Your task to perform on an android device: Open accessibility settings Image 0: 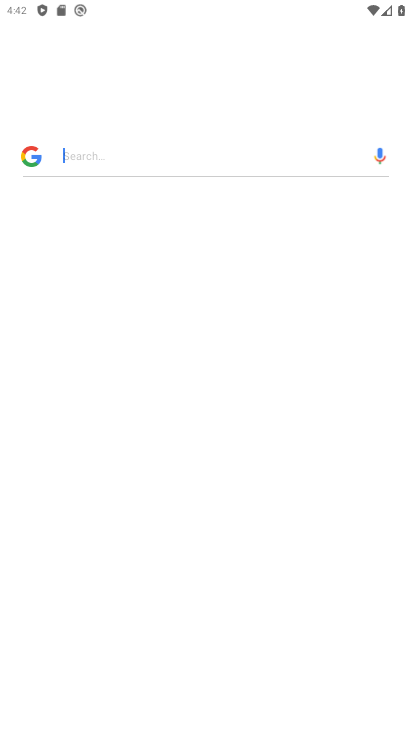
Step 0: drag from (279, 617) to (248, 314)
Your task to perform on an android device: Open accessibility settings Image 1: 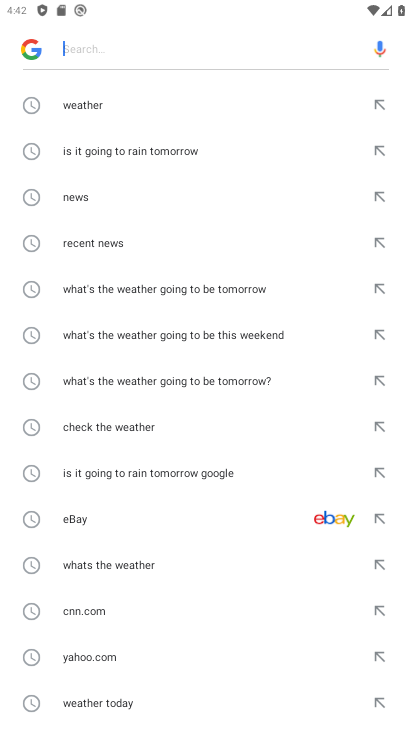
Step 1: press back button
Your task to perform on an android device: Open accessibility settings Image 2: 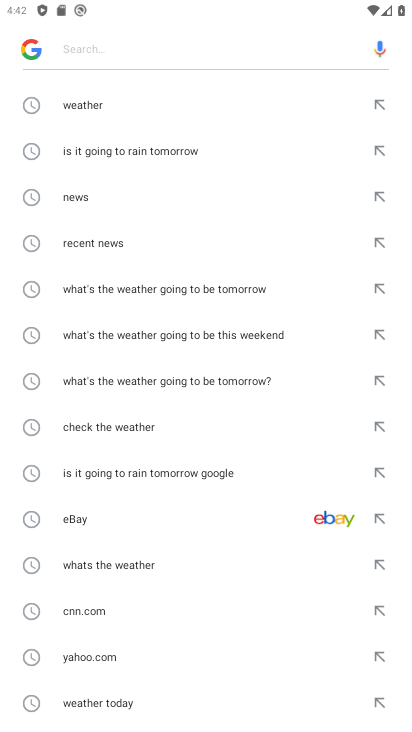
Step 2: press back button
Your task to perform on an android device: Open accessibility settings Image 3: 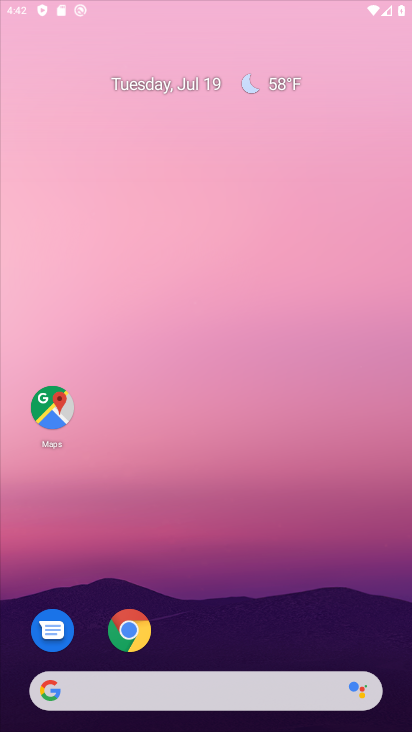
Step 3: press back button
Your task to perform on an android device: Open accessibility settings Image 4: 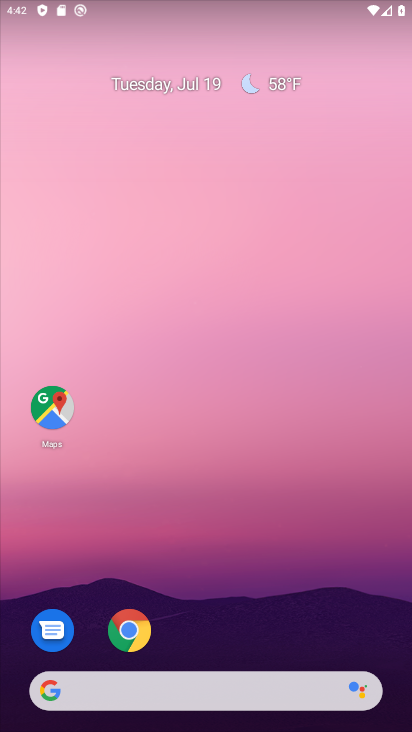
Step 4: drag from (196, 401) to (187, 135)
Your task to perform on an android device: Open accessibility settings Image 5: 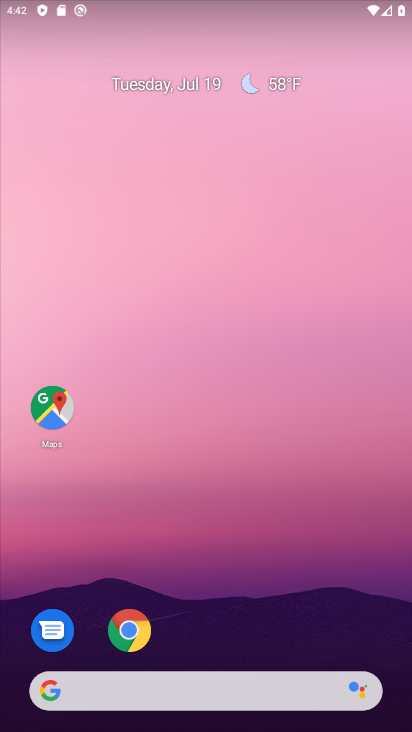
Step 5: drag from (212, 407) to (192, 57)
Your task to perform on an android device: Open accessibility settings Image 6: 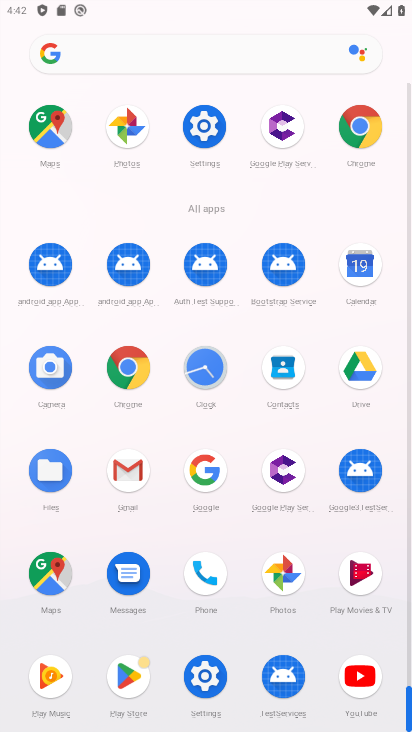
Step 6: drag from (250, 531) to (277, 234)
Your task to perform on an android device: Open accessibility settings Image 7: 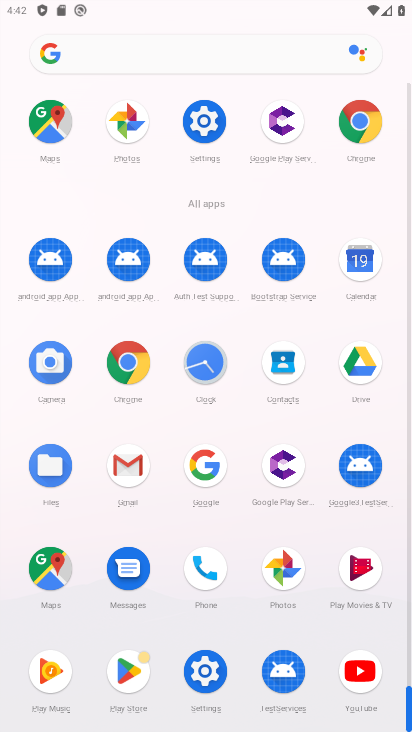
Step 7: click (208, 134)
Your task to perform on an android device: Open accessibility settings Image 8: 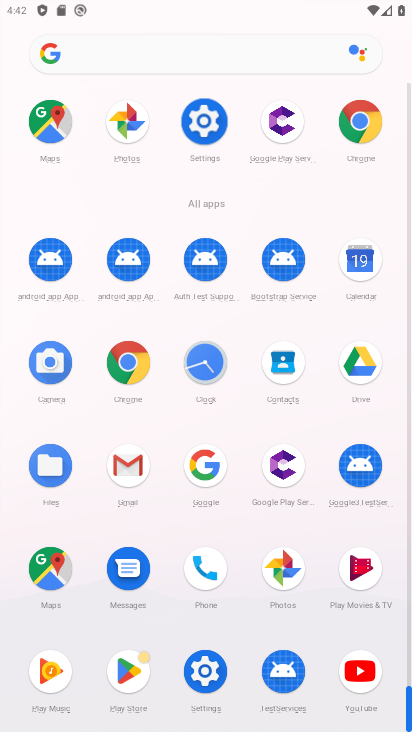
Step 8: click (208, 134)
Your task to perform on an android device: Open accessibility settings Image 9: 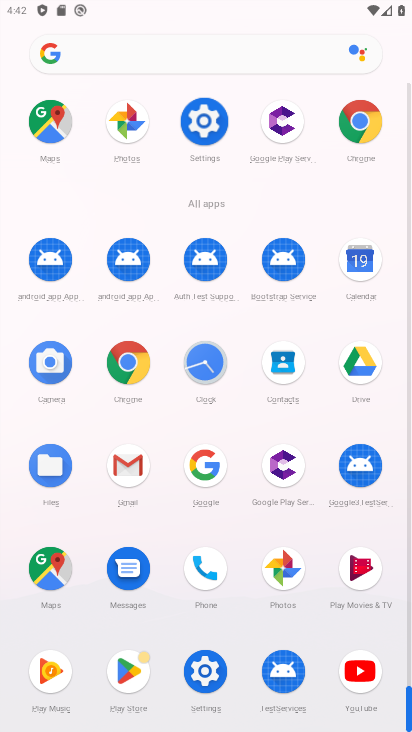
Step 9: click (208, 134)
Your task to perform on an android device: Open accessibility settings Image 10: 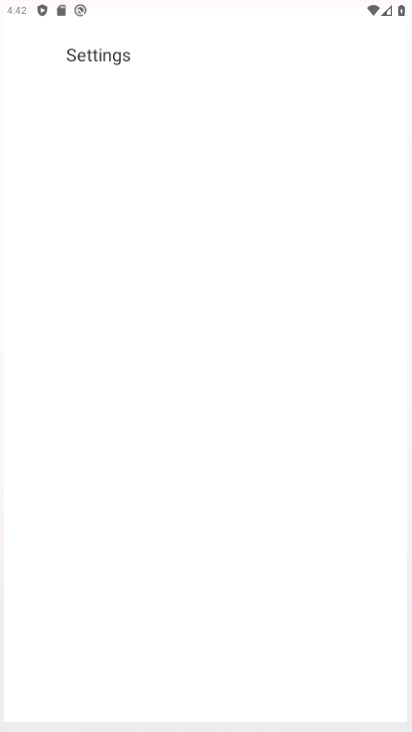
Step 10: click (208, 134)
Your task to perform on an android device: Open accessibility settings Image 11: 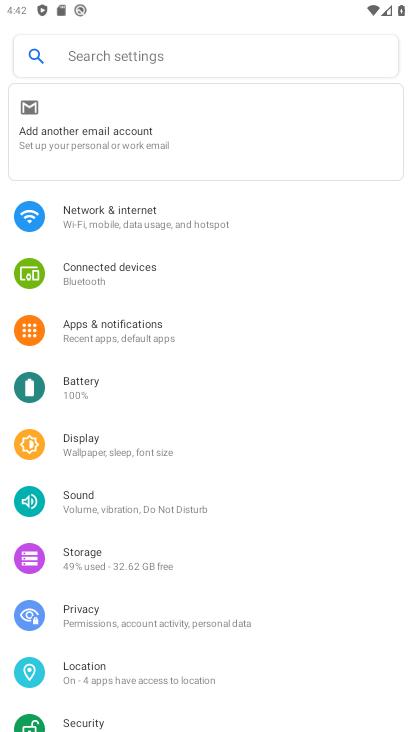
Step 11: click (210, 134)
Your task to perform on an android device: Open accessibility settings Image 12: 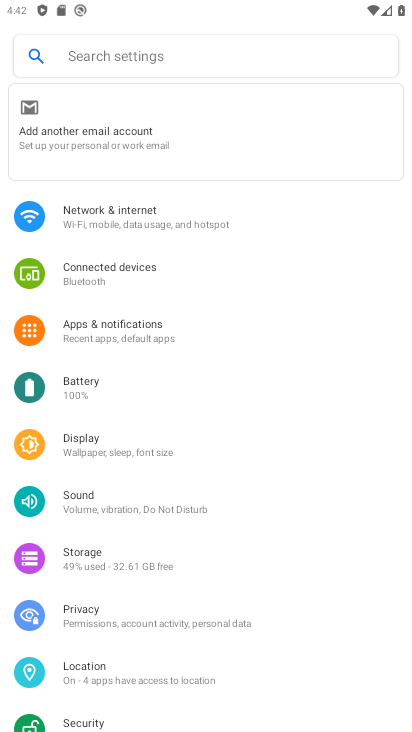
Step 12: drag from (116, 610) to (124, 365)
Your task to perform on an android device: Open accessibility settings Image 13: 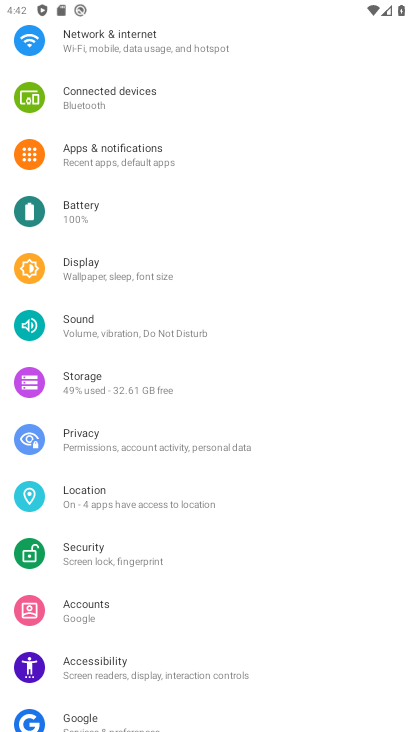
Step 13: drag from (146, 555) to (121, 366)
Your task to perform on an android device: Open accessibility settings Image 14: 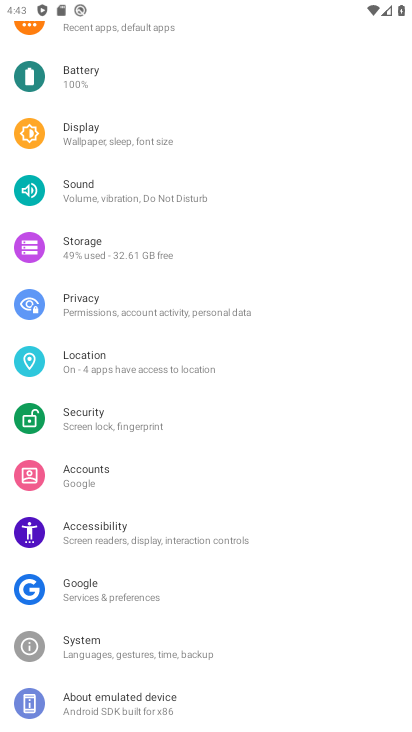
Step 14: click (93, 530)
Your task to perform on an android device: Open accessibility settings Image 15: 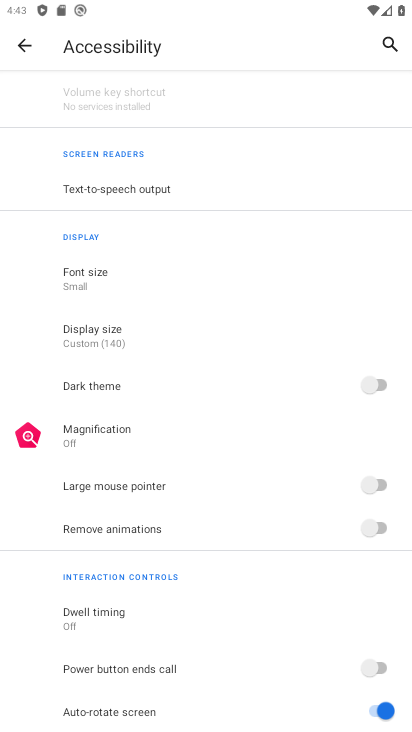
Step 15: task complete